Your task to perform on an android device: move a message to another label in the gmail app Image 0: 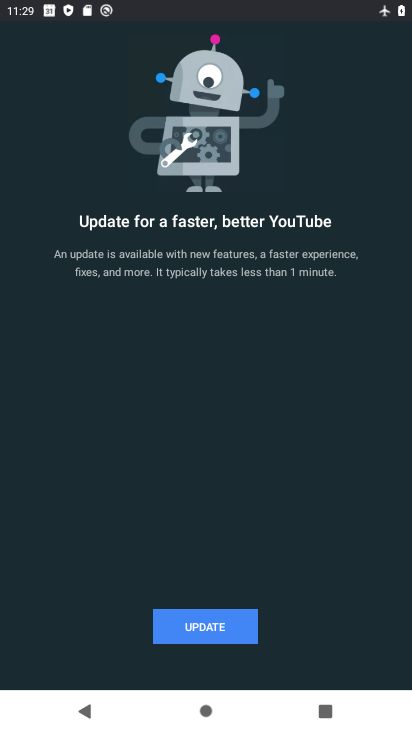
Step 0: press back button
Your task to perform on an android device: move a message to another label in the gmail app Image 1: 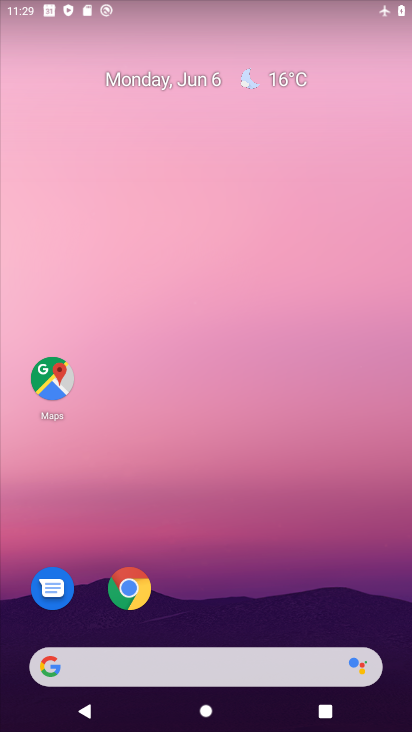
Step 1: drag from (229, 593) to (211, 131)
Your task to perform on an android device: move a message to another label in the gmail app Image 2: 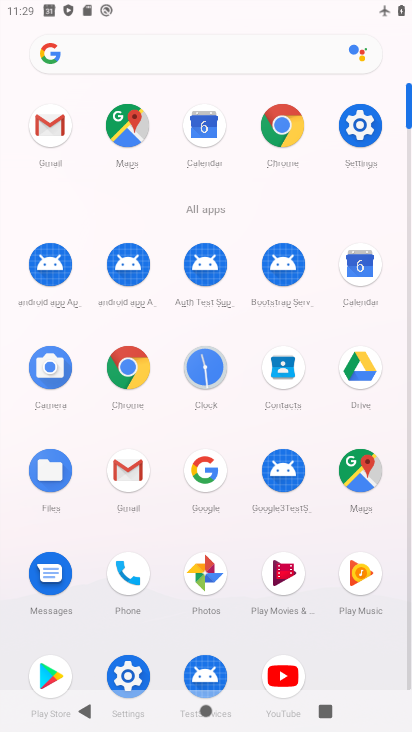
Step 2: click (49, 122)
Your task to perform on an android device: move a message to another label in the gmail app Image 3: 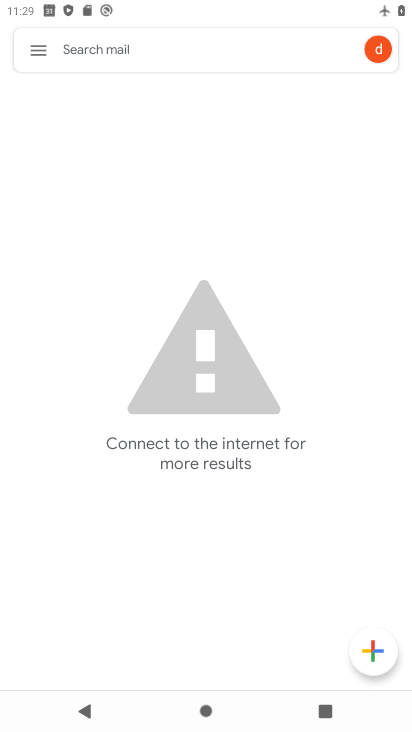
Step 3: click (37, 53)
Your task to perform on an android device: move a message to another label in the gmail app Image 4: 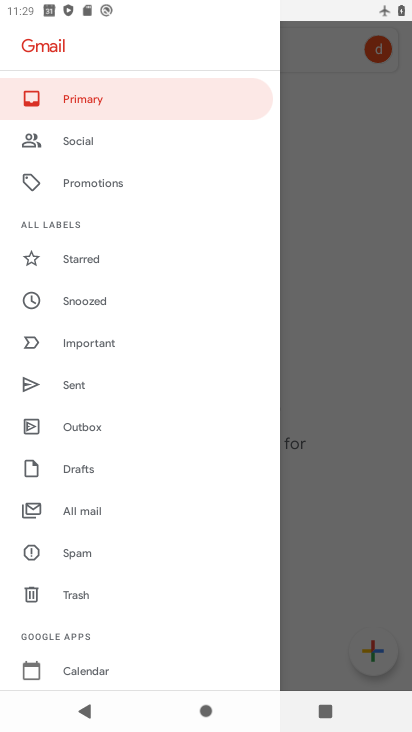
Step 4: click (95, 511)
Your task to perform on an android device: move a message to another label in the gmail app Image 5: 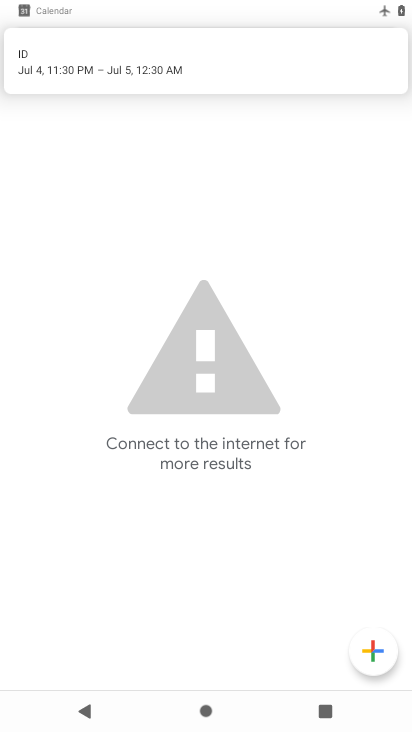
Step 5: click (320, 267)
Your task to perform on an android device: move a message to another label in the gmail app Image 6: 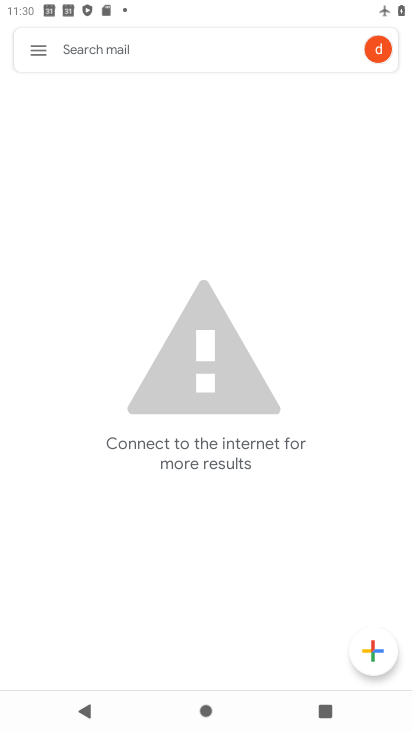
Step 6: click (48, 42)
Your task to perform on an android device: move a message to another label in the gmail app Image 7: 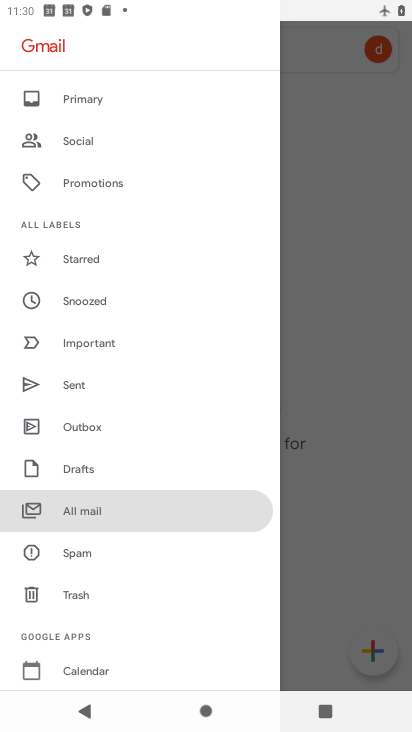
Step 7: click (85, 270)
Your task to perform on an android device: move a message to another label in the gmail app Image 8: 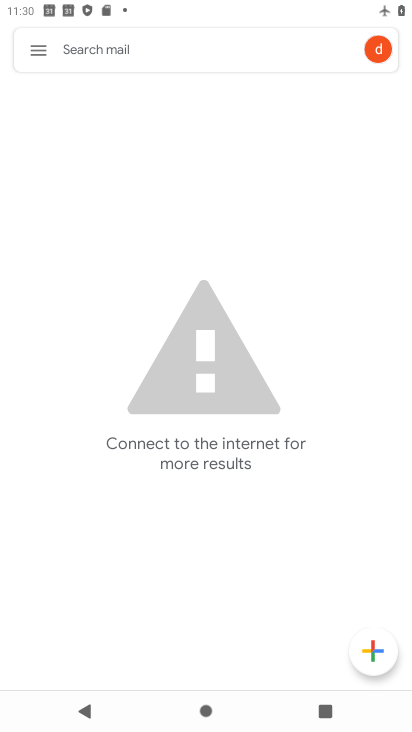
Step 8: click (29, 51)
Your task to perform on an android device: move a message to another label in the gmail app Image 9: 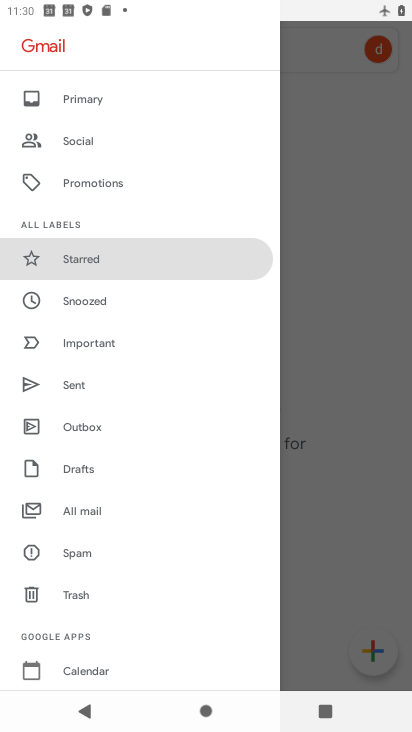
Step 9: click (70, 110)
Your task to perform on an android device: move a message to another label in the gmail app Image 10: 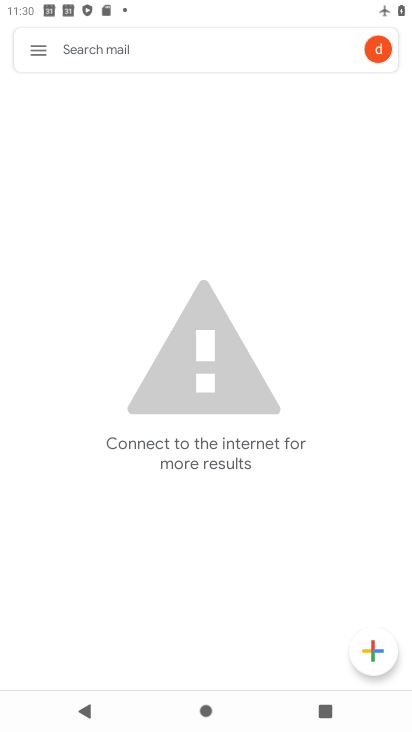
Step 10: task complete